Your task to perform on an android device: turn pop-ups off in chrome Image 0: 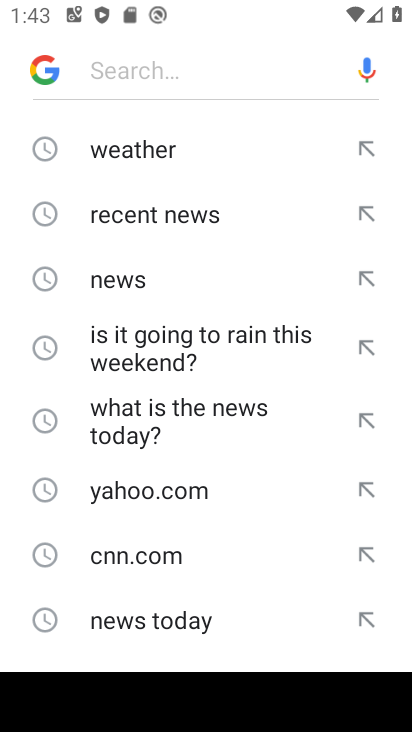
Step 0: press home button
Your task to perform on an android device: turn pop-ups off in chrome Image 1: 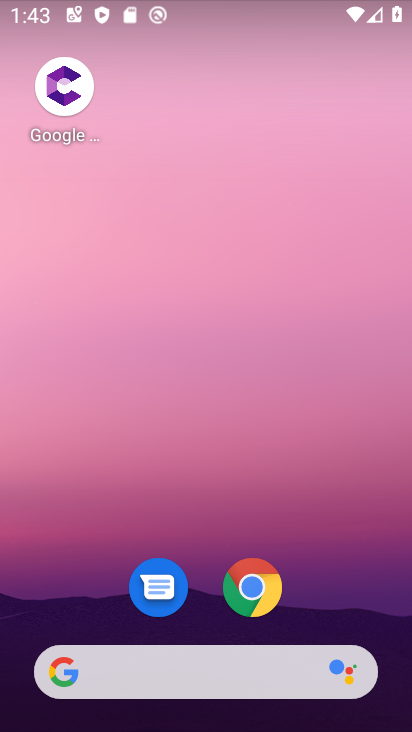
Step 1: click (261, 586)
Your task to perform on an android device: turn pop-ups off in chrome Image 2: 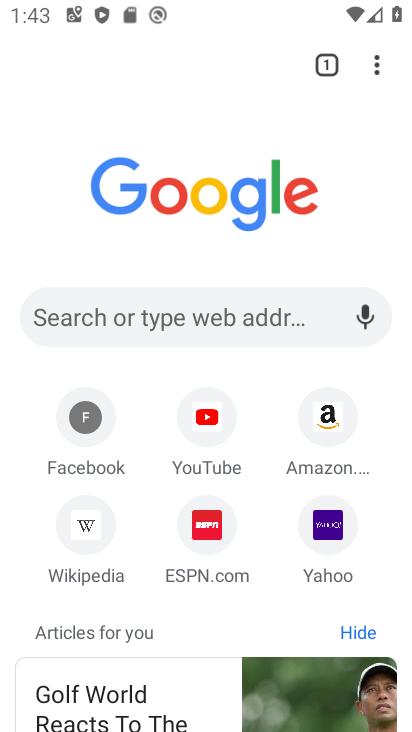
Step 2: click (376, 76)
Your task to perform on an android device: turn pop-ups off in chrome Image 3: 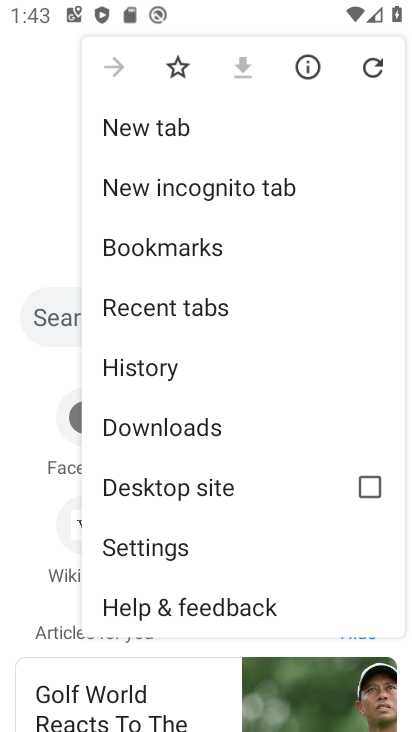
Step 3: click (216, 543)
Your task to perform on an android device: turn pop-ups off in chrome Image 4: 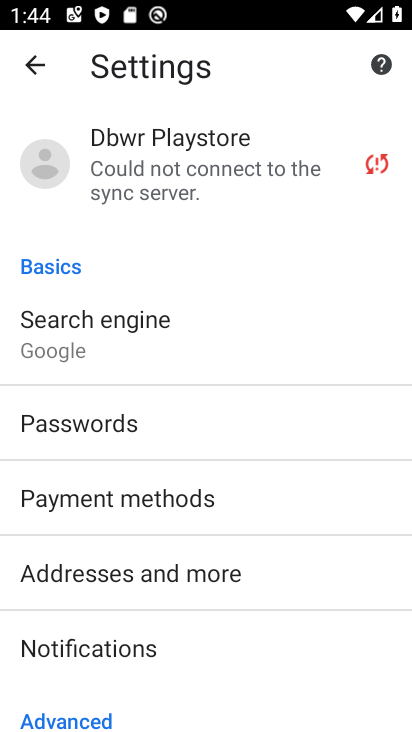
Step 4: drag from (232, 600) to (302, 51)
Your task to perform on an android device: turn pop-ups off in chrome Image 5: 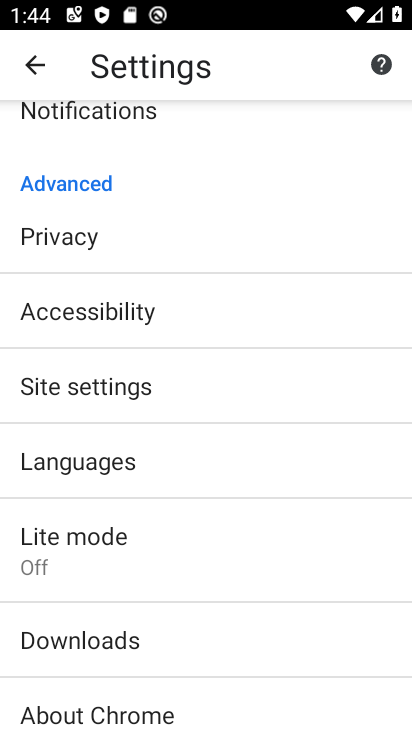
Step 5: click (93, 397)
Your task to perform on an android device: turn pop-ups off in chrome Image 6: 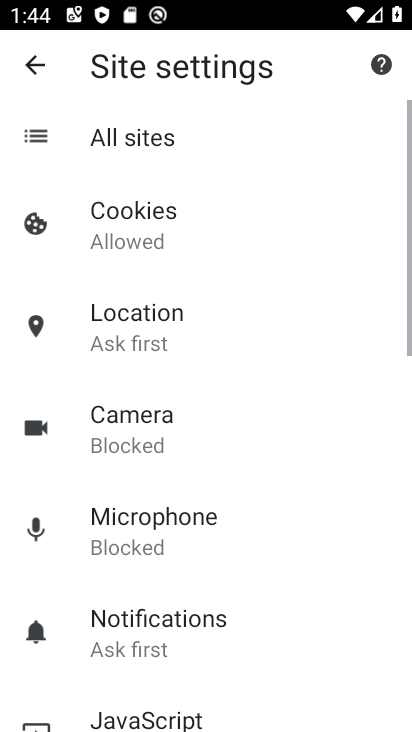
Step 6: drag from (184, 623) to (186, 300)
Your task to perform on an android device: turn pop-ups off in chrome Image 7: 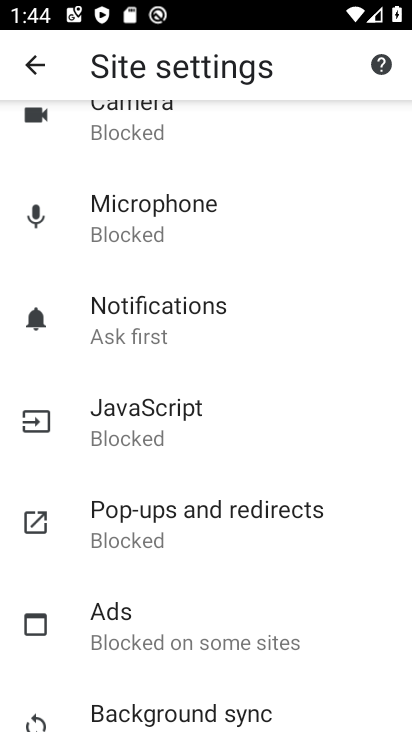
Step 7: click (164, 528)
Your task to perform on an android device: turn pop-ups off in chrome Image 8: 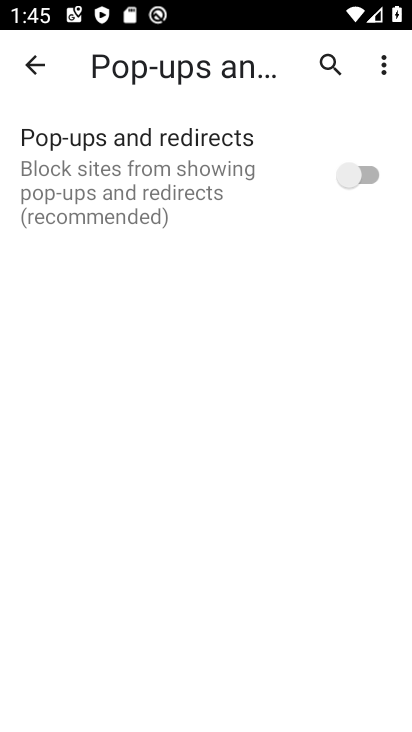
Step 8: task complete